Your task to perform on an android device: open device folders in google photos Image 0: 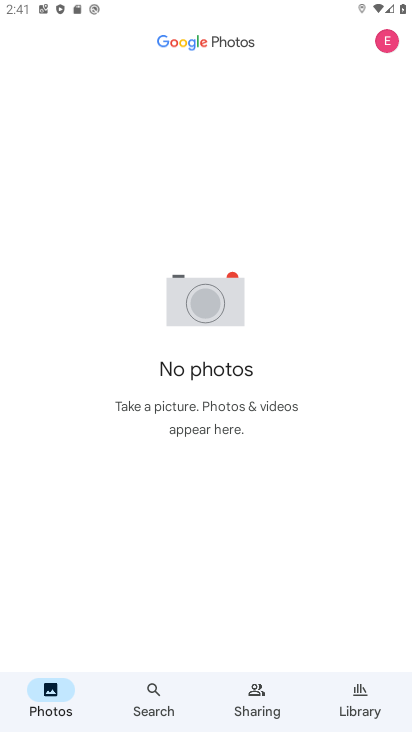
Step 0: press home button
Your task to perform on an android device: open device folders in google photos Image 1: 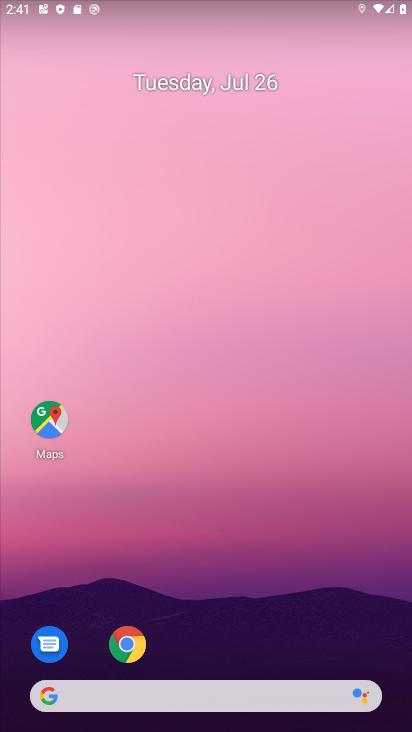
Step 1: drag from (257, 611) to (304, 117)
Your task to perform on an android device: open device folders in google photos Image 2: 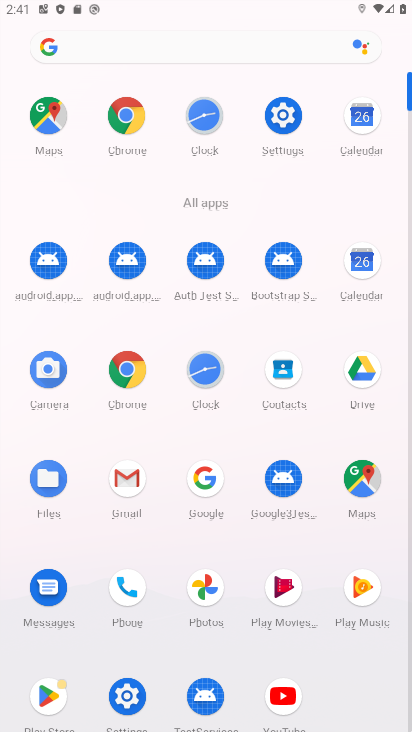
Step 2: click (202, 597)
Your task to perform on an android device: open device folders in google photos Image 3: 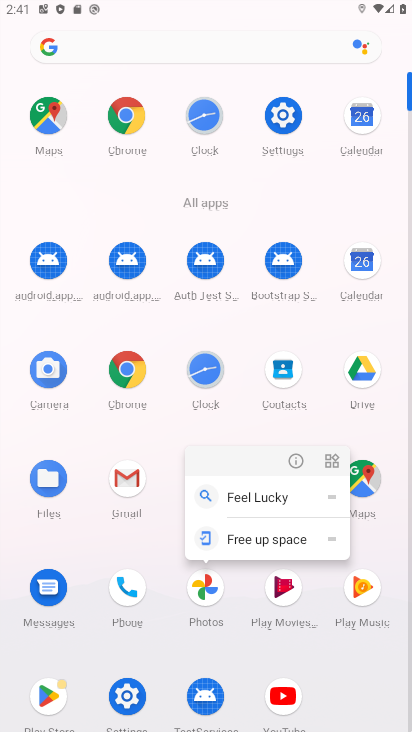
Step 3: click (206, 583)
Your task to perform on an android device: open device folders in google photos Image 4: 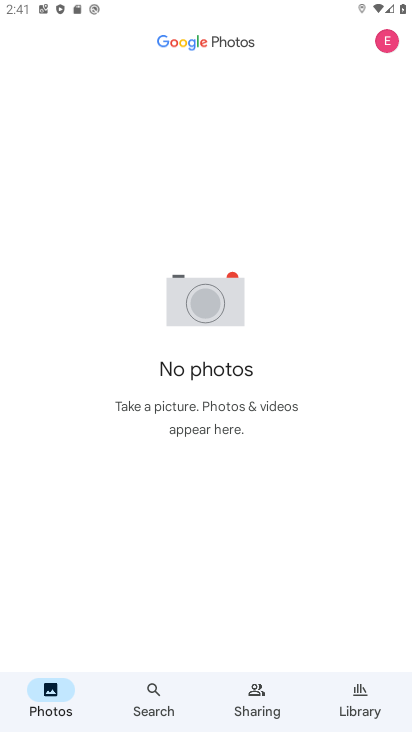
Step 4: click (150, 684)
Your task to perform on an android device: open device folders in google photos Image 5: 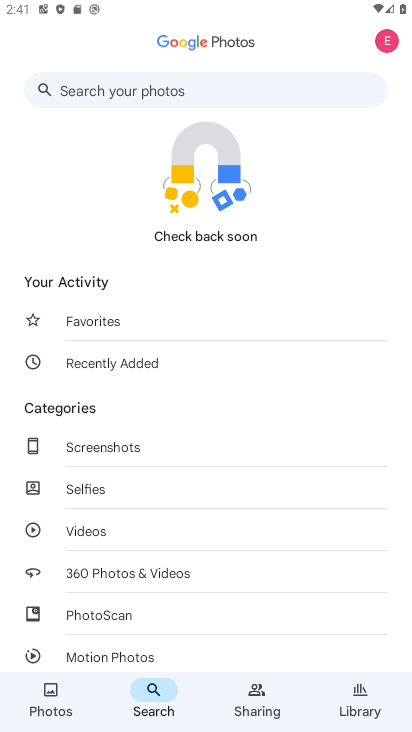
Step 5: click (169, 86)
Your task to perform on an android device: open device folders in google photos Image 6: 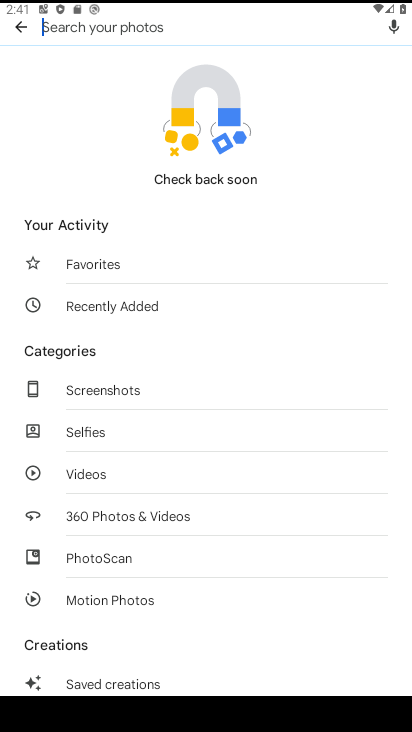
Step 6: type "device folders"
Your task to perform on an android device: open device folders in google photos Image 7: 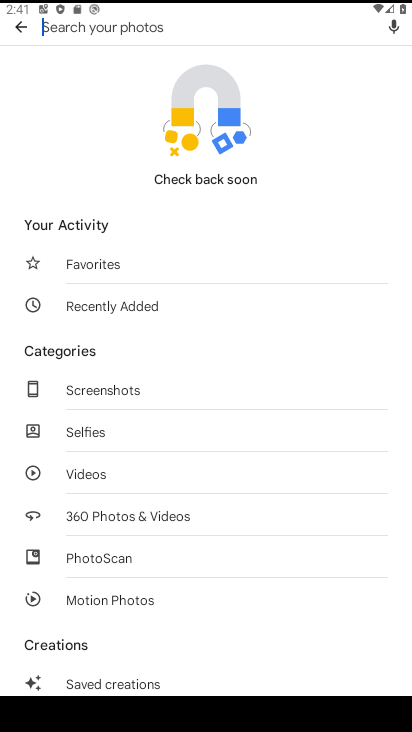
Step 7: click (109, 24)
Your task to perform on an android device: open device folders in google photos Image 8: 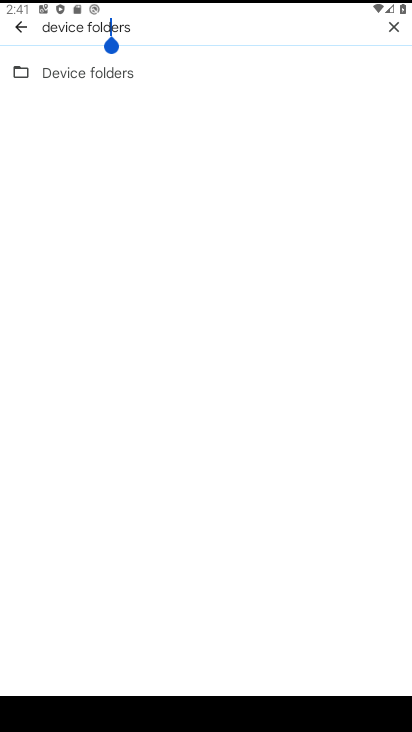
Step 8: click (93, 79)
Your task to perform on an android device: open device folders in google photos Image 9: 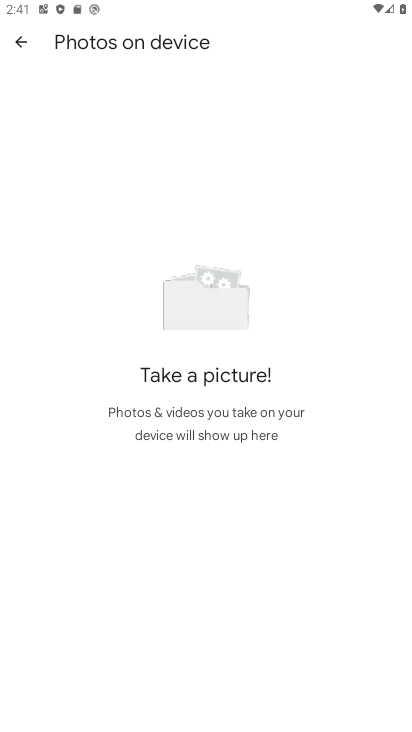
Step 9: task complete